Your task to perform on an android device: Go to Yahoo.com Image 0: 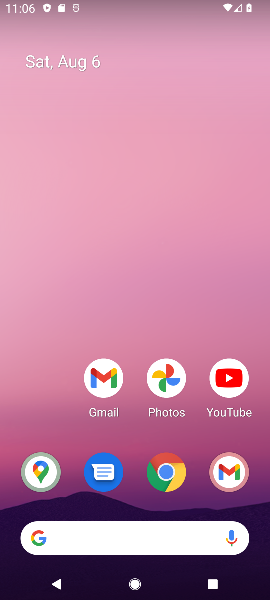
Step 0: drag from (162, 493) to (72, 95)
Your task to perform on an android device: Go to Yahoo.com Image 1: 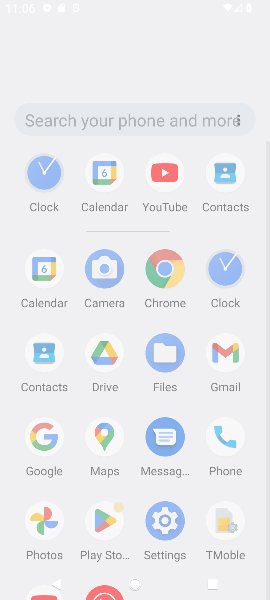
Step 1: click (109, 25)
Your task to perform on an android device: Go to Yahoo.com Image 2: 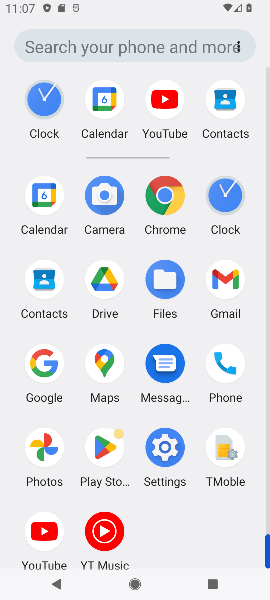
Step 2: click (164, 201)
Your task to perform on an android device: Go to Yahoo.com Image 3: 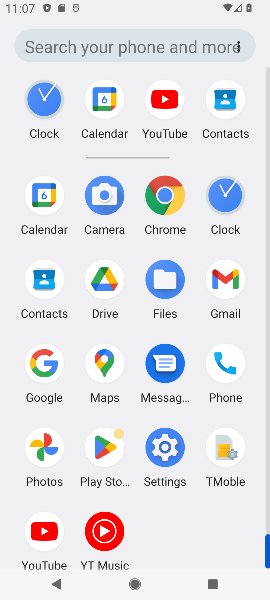
Step 3: click (164, 201)
Your task to perform on an android device: Go to Yahoo.com Image 4: 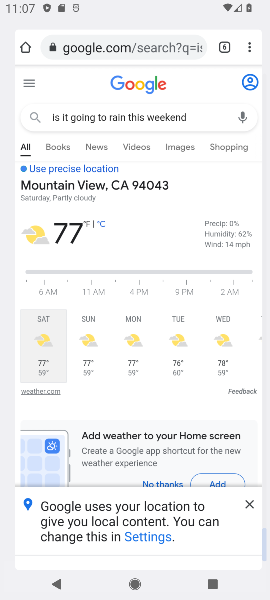
Step 4: click (158, 202)
Your task to perform on an android device: Go to Yahoo.com Image 5: 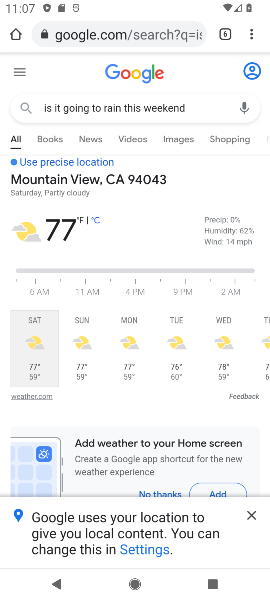
Step 5: click (159, 204)
Your task to perform on an android device: Go to Yahoo.com Image 6: 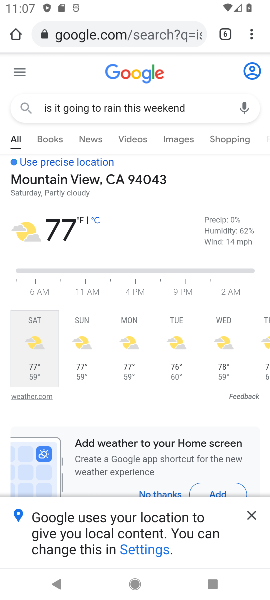
Step 6: click (253, 30)
Your task to perform on an android device: Go to Yahoo.com Image 7: 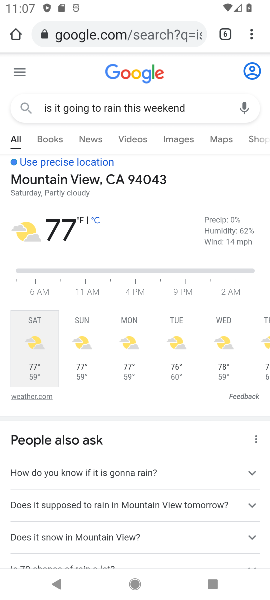
Step 7: drag from (252, 30) to (150, 113)
Your task to perform on an android device: Go to Yahoo.com Image 8: 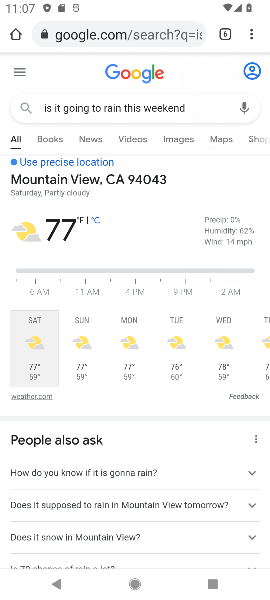
Step 8: click (154, 115)
Your task to perform on an android device: Go to Yahoo.com Image 9: 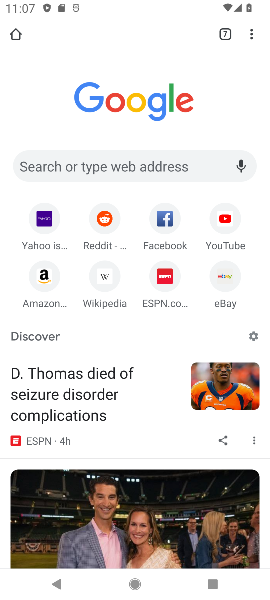
Step 9: click (39, 215)
Your task to perform on an android device: Go to Yahoo.com Image 10: 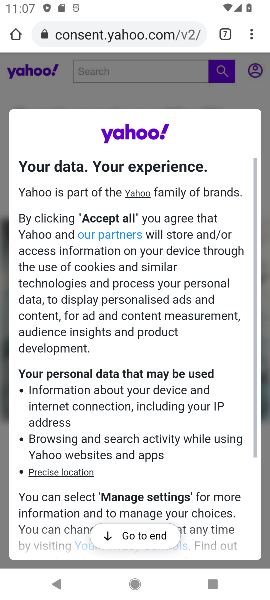
Step 10: task complete